Your task to perform on an android device: turn on translation in the chrome app Image 0: 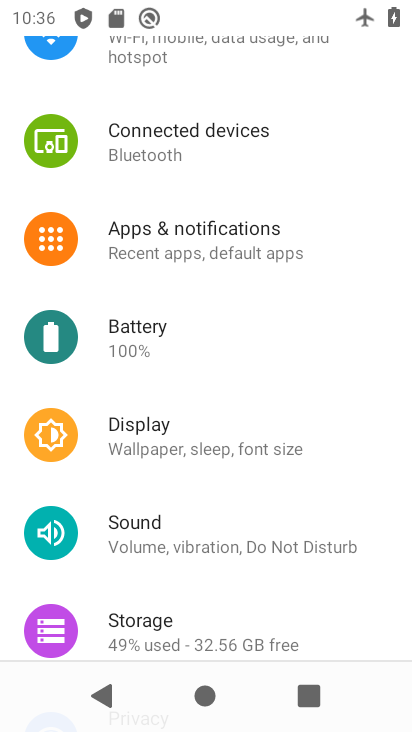
Step 0: press back button
Your task to perform on an android device: turn on translation in the chrome app Image 1: 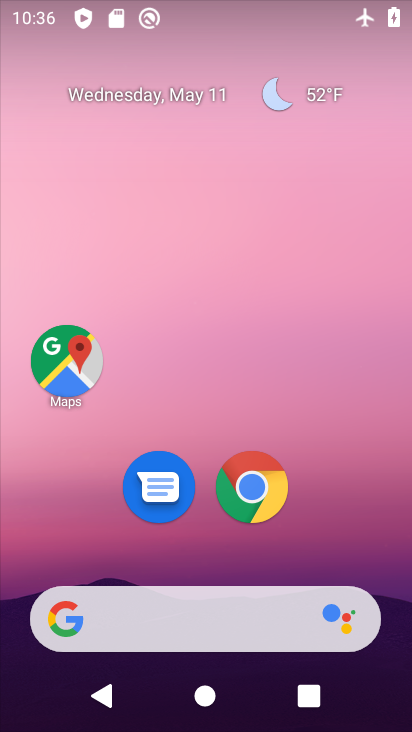
Step 1: drag from (333, 446) to (298, 26)
Your task to perform on an android device: turn on translation in the chrome app Image 2: 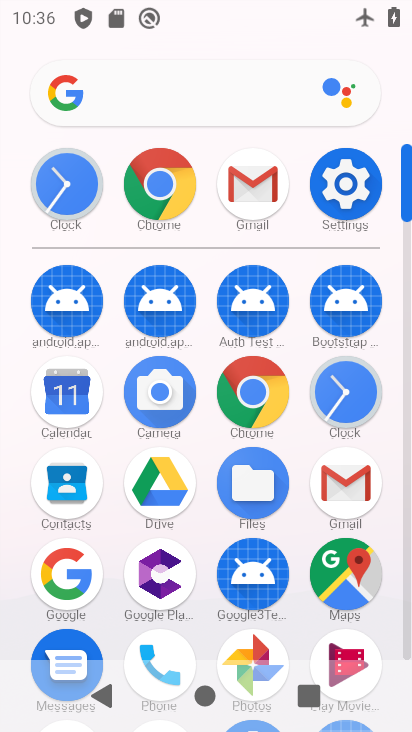
Step 2: click (163, 183)
Your task to perform on an android device: turn on translation in the chrome app Image 3: 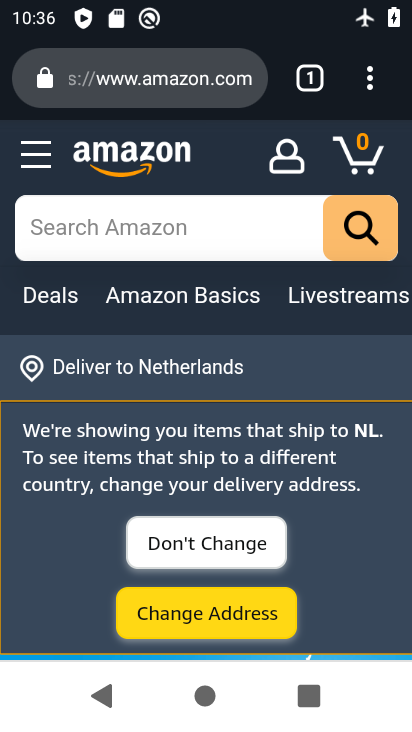
Step 3: drag from (374, 79) to (86, 552)
Your task to perform on an android device: turn on translation in the chrome app Image 4: 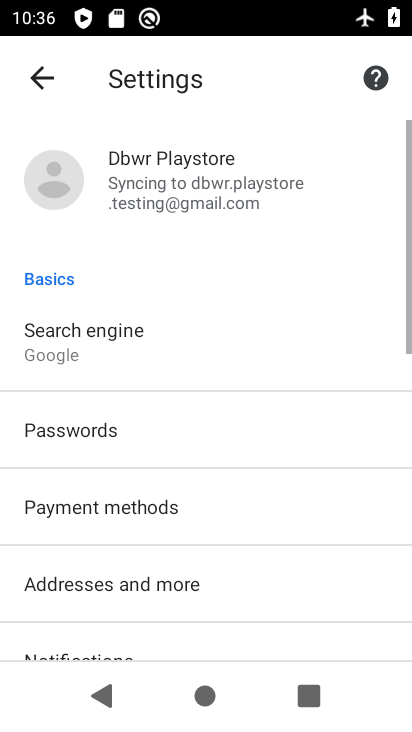
Step 4: drag from (241, 579) to (272, 197)
Your task to perform on an android device: turn on translation in the chrome app Image 5: 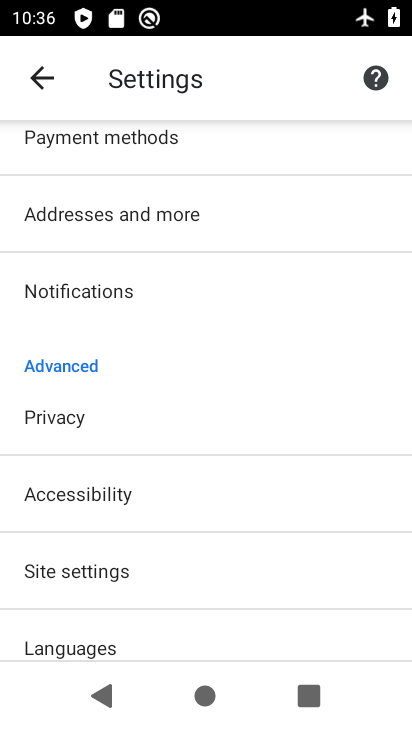
Step 5: drag from (181, 552) to (231, 230)
Your task to perform on an android device: turn on translation in the chrome app Image 6: 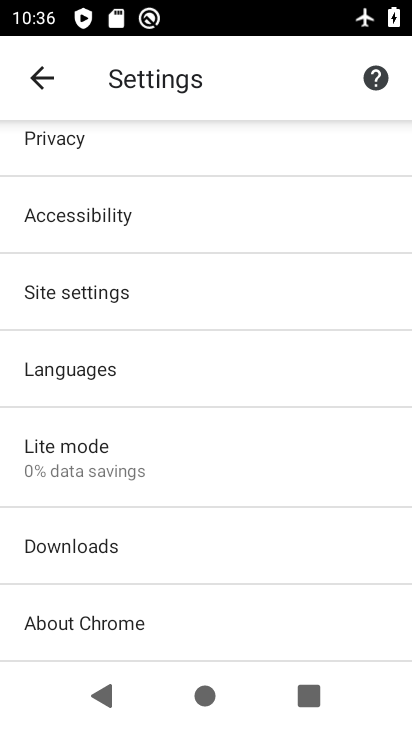
Step 6: click (161, 360)
Your task to perform on an android device: turn on translation in the chrome app Image 7: 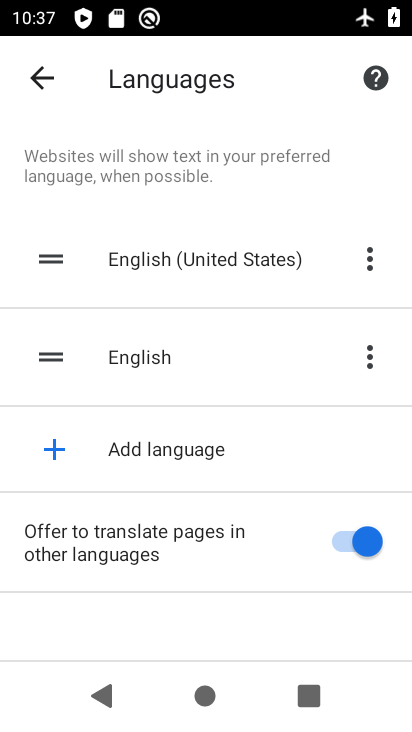
Step 7: task complete